Your task to perform on an android device: Do I have any events this weekend? Image 0: 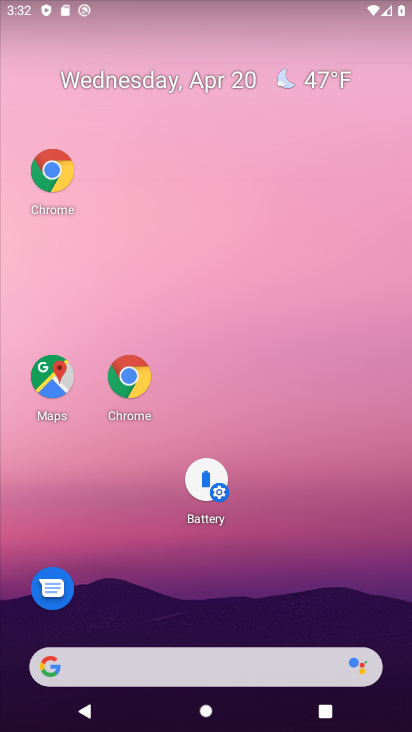
Step 0: drag from (331, 635) to (353, 10)
Your task to perform on an android device: Do I have any events this weekend? Image 1: 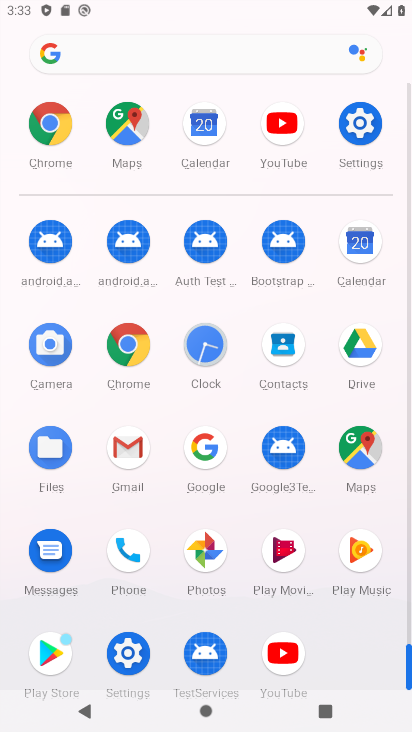
Step 1: click (357, 246)
Your task to perform on an android device: Do I have any events this weekend? Image 2: 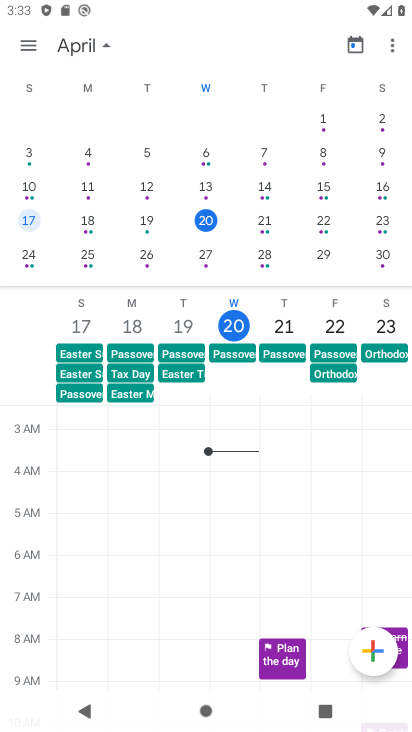
Step 2: click (261, 230)
Your task to perform on an android device: Do I have any events this weekend? Image 3: 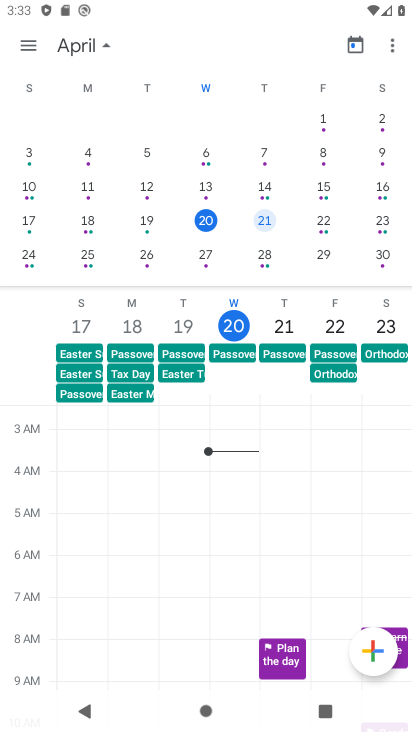
Step 3: click (320, 225)
Your task to perform on an android device: Do I have any events this weekend? Image 4: 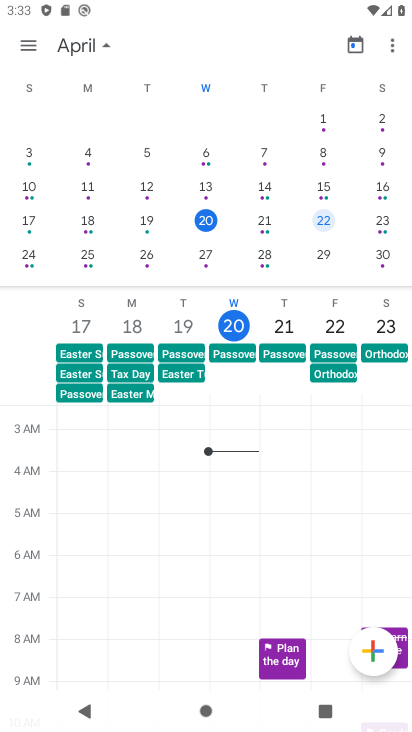
Step 4: click (383, 219)
Your task to perform on an android device: Do I have any events this weekend? Image 5: 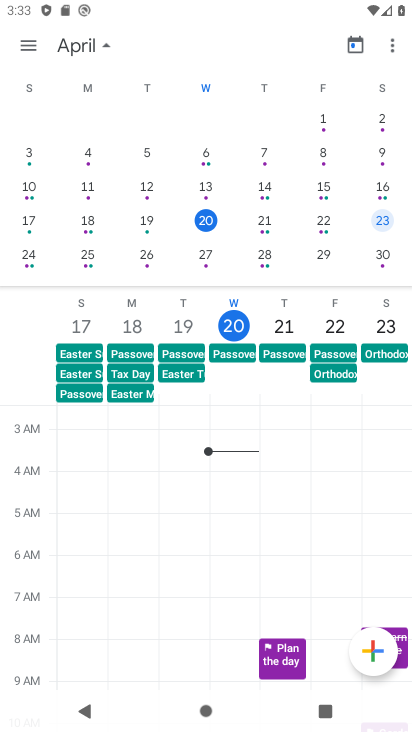
Step 5: task complete